Your task to perform on an android device: find snoozed emails in the gmail app Image 0: 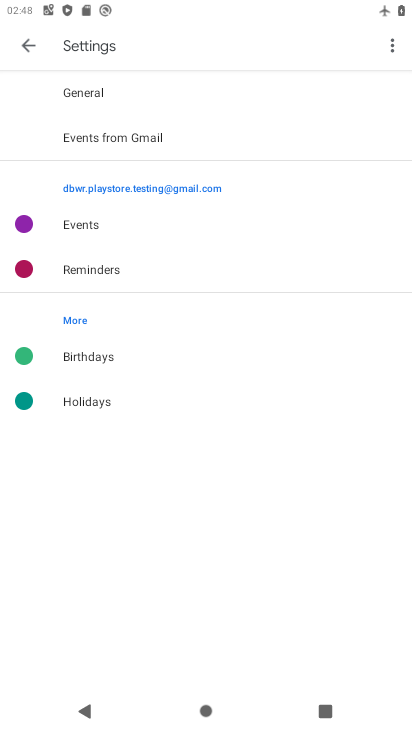
Step 0: press home button
Your task to perform on an android device: find snoozed emails in the gmail app Image 1: 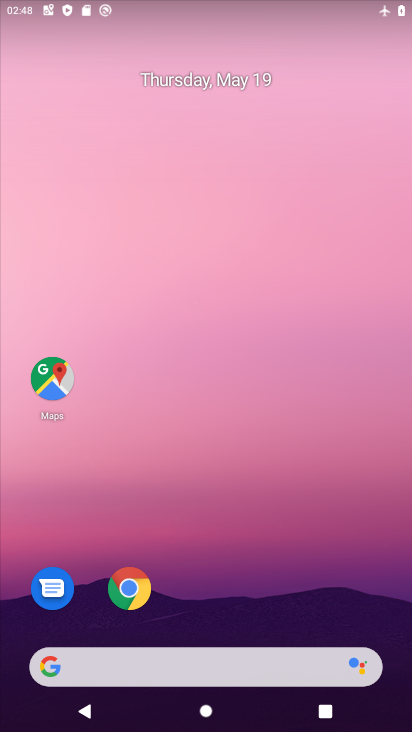
Step 1: drag from (244, 435) to (227, 128)
Your task to perform on an android device: find snoozed emails in the gmail app Image 2: 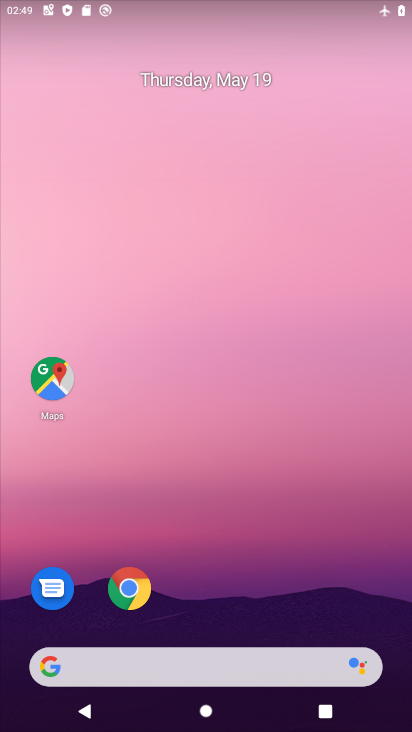
Step 2: drag from (203, 360) to (194, 131)
Your task to perform on an android device: find snoozed emails in the gmail app Image 3: 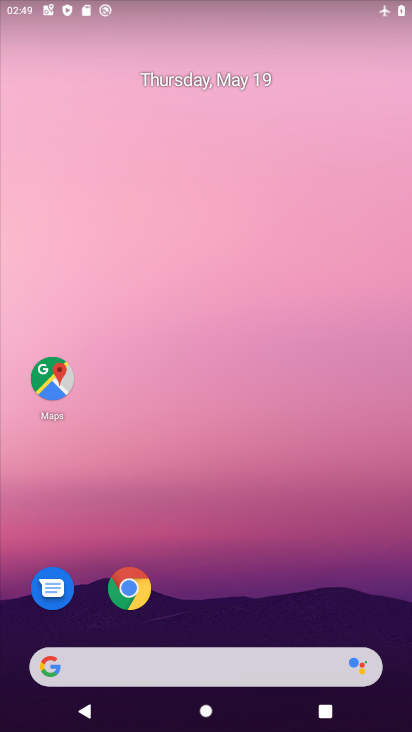
Step 3: drag from (245, 538) to (250, 13)
Your task to perform on an android device: find snoozed emails in the gmail app Image 4: 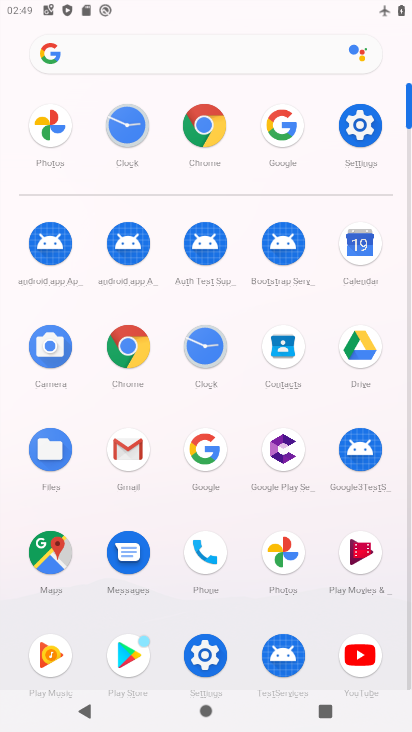
Step 4: click (125, 451)
Your task to perform on an android device: find snoozed emails in the gmail app Image 5: 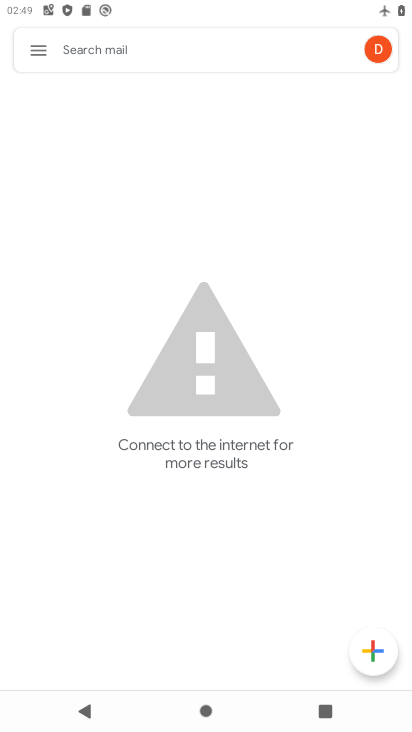
Step 5: click (44, 52)
Your task to perform on an android device: find snoozed emails in the gmail app Image 6: 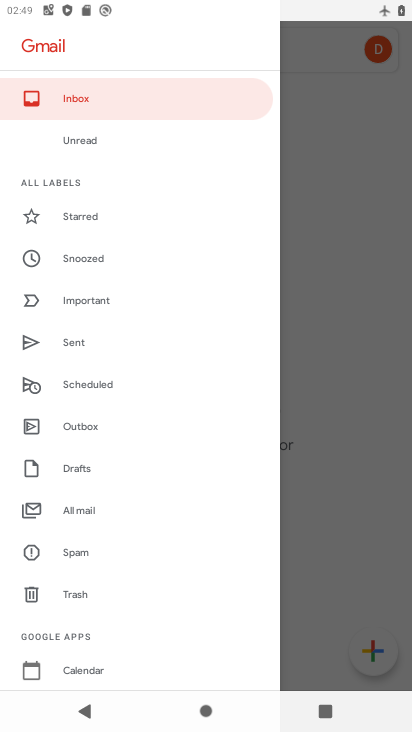
Step 6: click (92, 252)
Your task to perform on an android device: find snoozed emails in the gmail app Image 7: 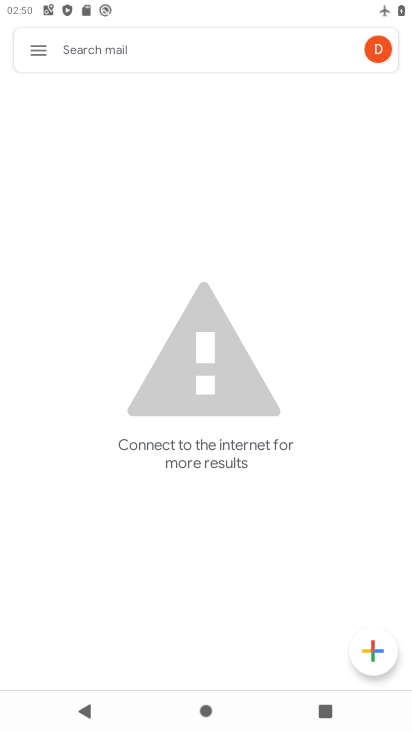
Step 7: task complete